Your task to perform on an android device: Open Yahoo.com Image 0: 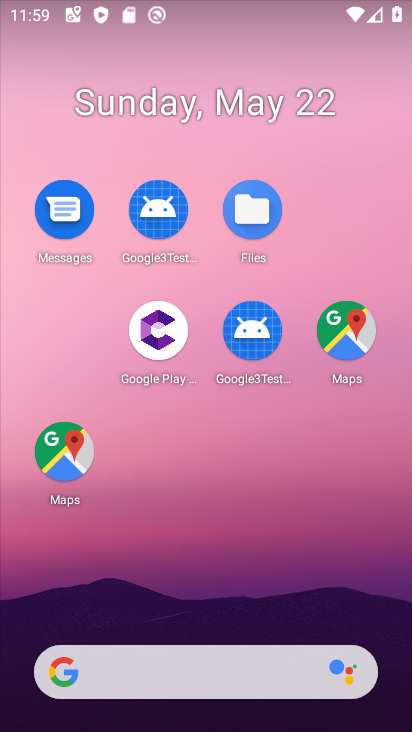
Step 0: drag from (217, 615) to (81, 131)
Your task to perform on an android device: Open Yahoo.com Image 1: 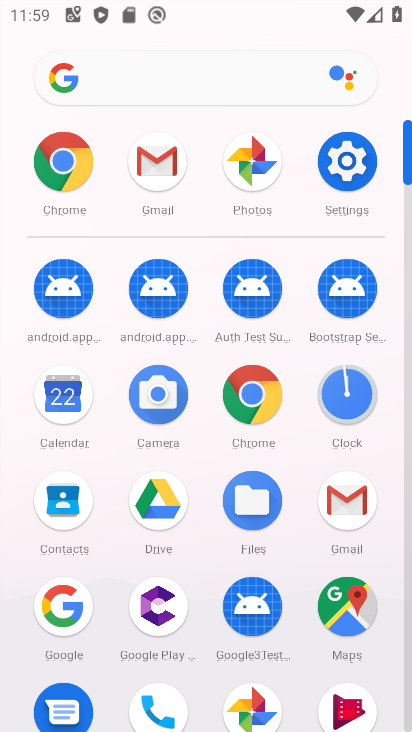
Step 1: click (256, 376)
Your task to perform on an android device: Open Yahoo.com Image 2: 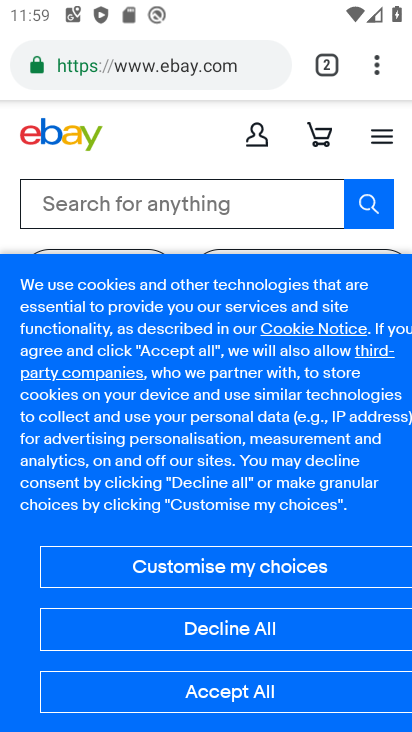
Step 2: click (320, 64)
Your task to perform on an android device: Open Yahoo.com Image 3: 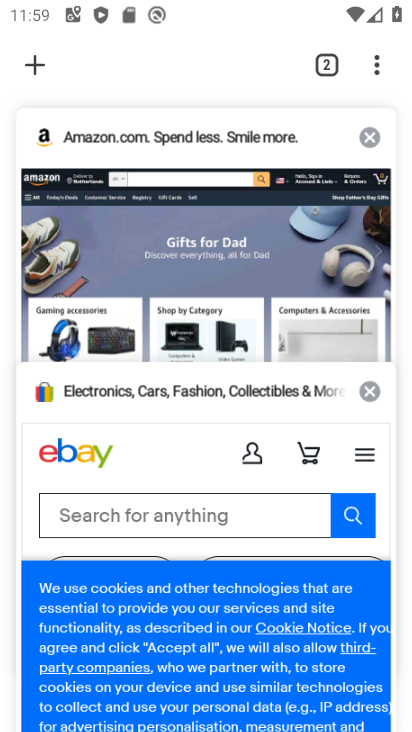
Step 3: click (26, 57)
Your task to perform on an android device: Open Yahoo.com Image 4: 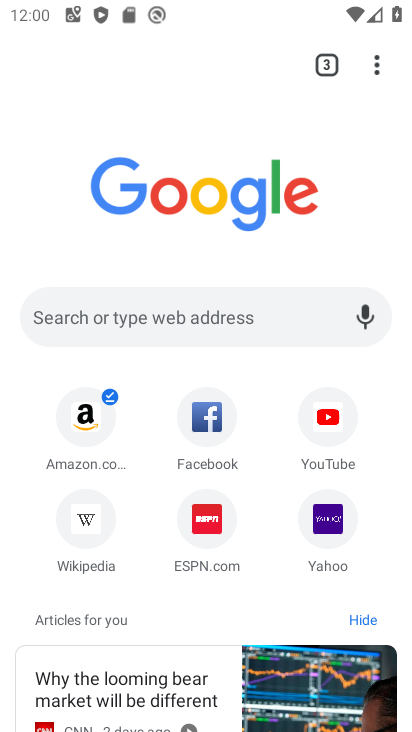
Step 4: click (347, 530)
Your task to perform on an android device: Open Yahoo.com Image 5: 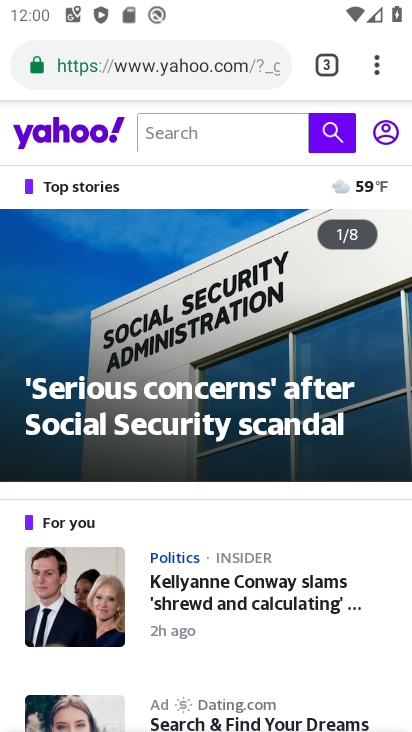
Step 5: task complete